Your task to perform on an android device: Open Wikipedia Image 0: 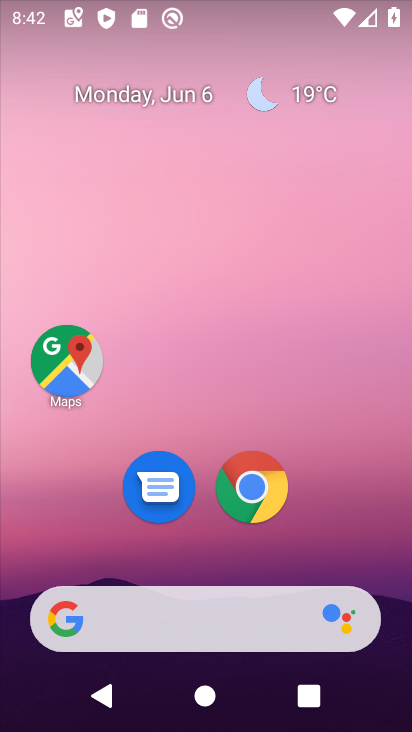
Step 0: press home button
Your task to perform on an android device: Open Wikipedia Image 1: 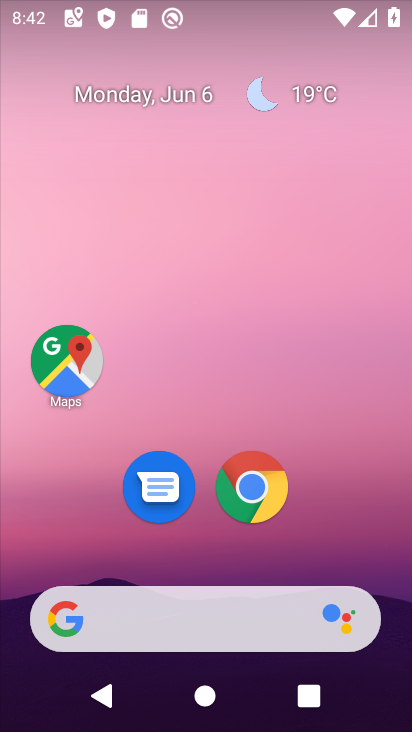
Step 1: click (253, 483)
Your task to perform on an android device: Open Wikipedia Image 2: 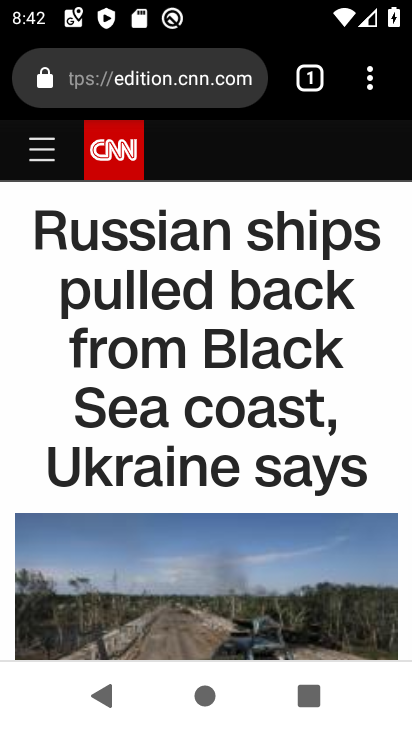
Step 2: click (309, 72)
Your task to perform on an android device: Open Wikipedia Image 3: 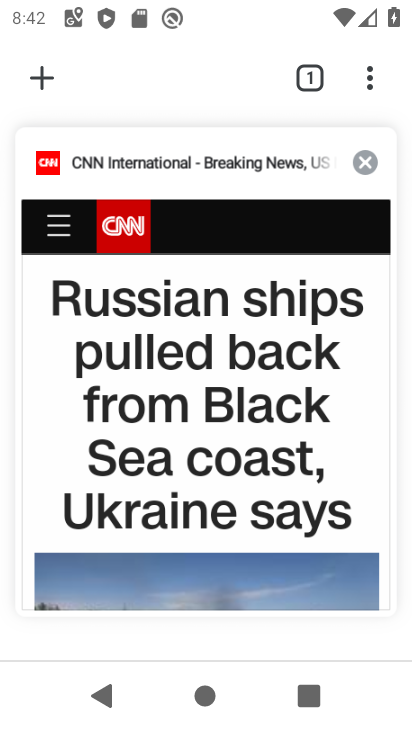
Step 3: click (363, 163)
Your task to perform on an android device: Open Wikipedia Image 4: 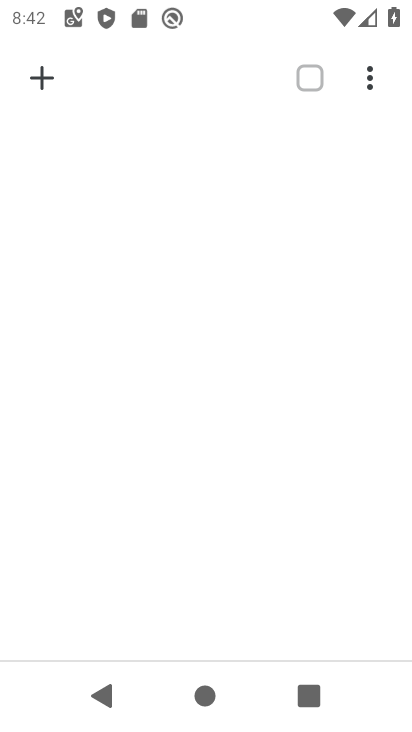
Step 4: click (53, 78)
Your task to perform on an android device: Open Wikipedia Image 5: 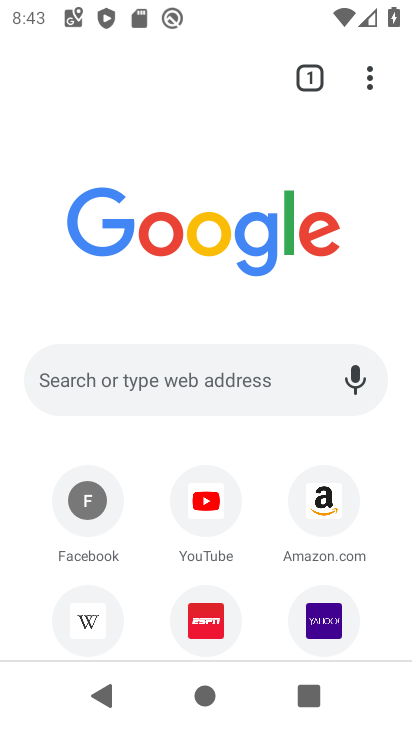
Step 5: click (87, 616)
Your task to perform on an android device: Open Wikipedia Image 6: 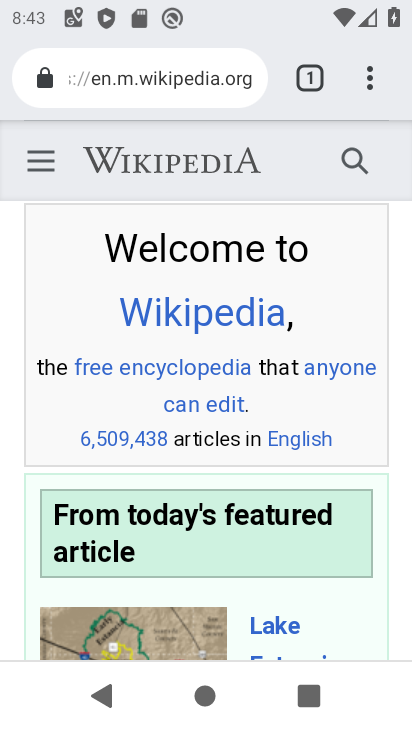
Step 6: task complete